Your task to perform on an android device: Find coffee shops on Maps Image 0: 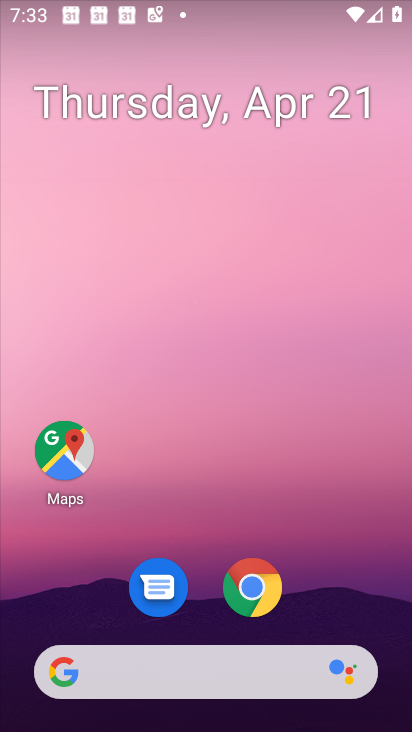
Step 0: click (59, 450)
Your task to perform on an android device: Find coffee shops on Maps Image 1: 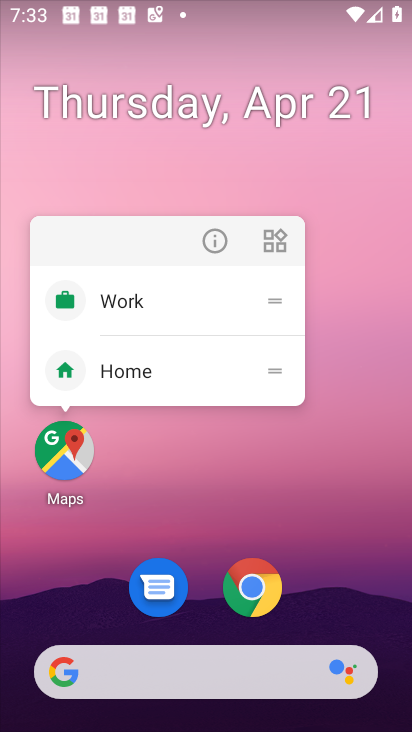
Step 1: click (59, 450)
Your task to perform on an android device: Find coffee shops on Maps Image 2: 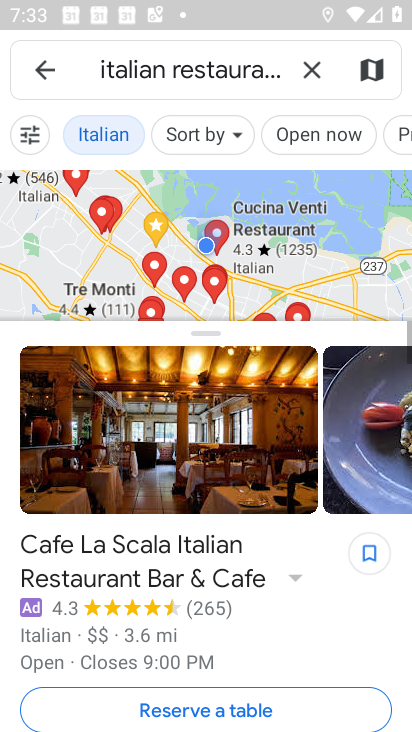
Step 2: click (314, 67)
Your task to perform on an android device: Find coffee shops on Maps Image 3: 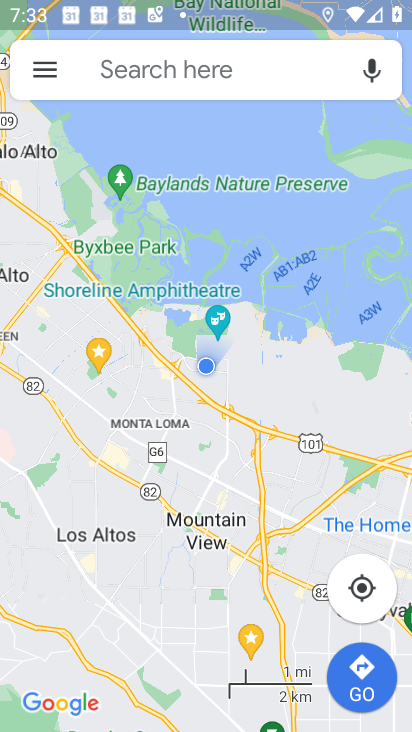
Step 3: click (122, 67)
Your task to perform on an android device: Find coffee shops on Maps Image 4: 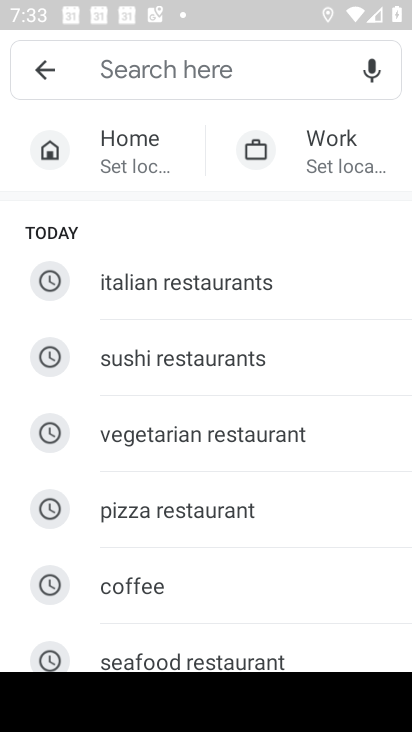
Step 4: type "coffee shops"
Your task to perform on an android device: Find coffee shops on Maps Image 5: 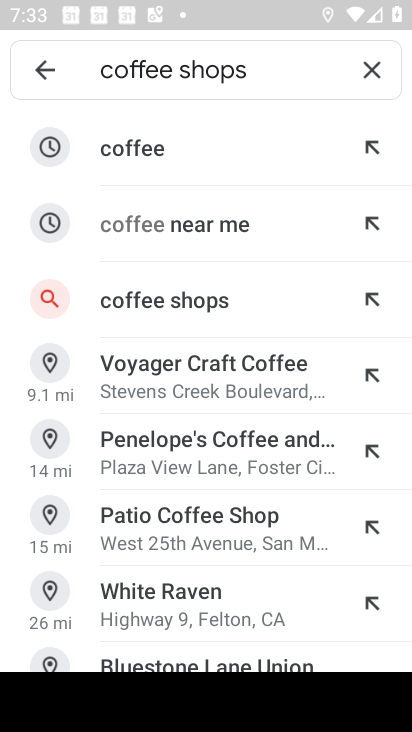
Step 5: click (200, 304)
Your task to perform on an android device: Find coffee shops on Maps Image 6: 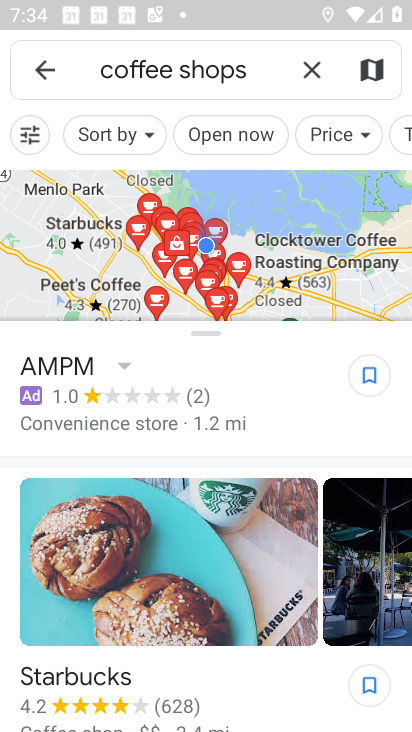
Step 6: task complete